Your task to perform on an android device: create a new album in the google photos Image 0: 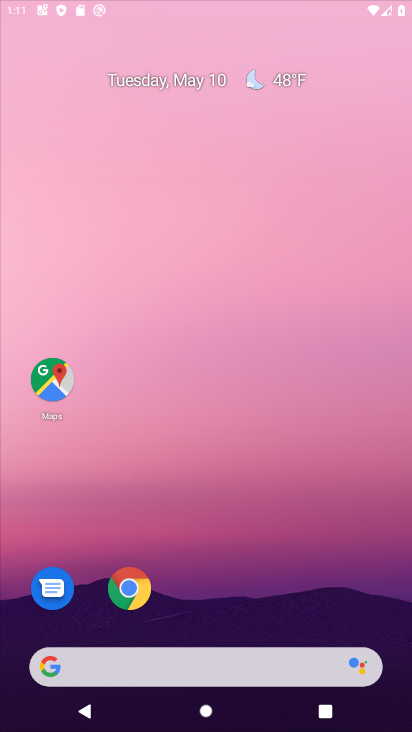
Step 0: drag from (213, 583) to (221, 263)
Your task to perform on an android device: create a new album in the google photos Image 1: 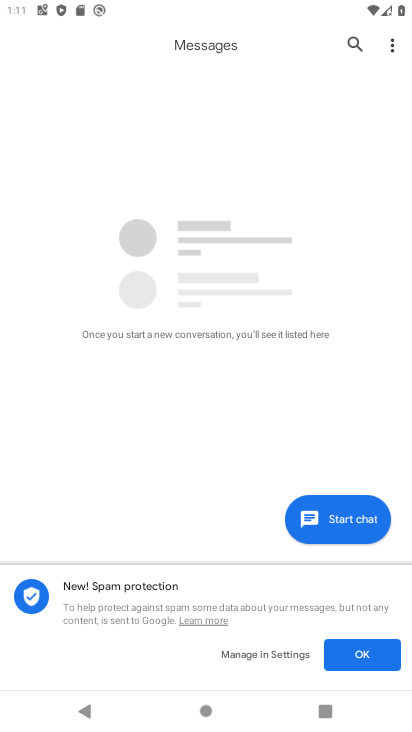
Step 1: press home button
Your task to perform on an android device: create a new album in the google photos Image 2: 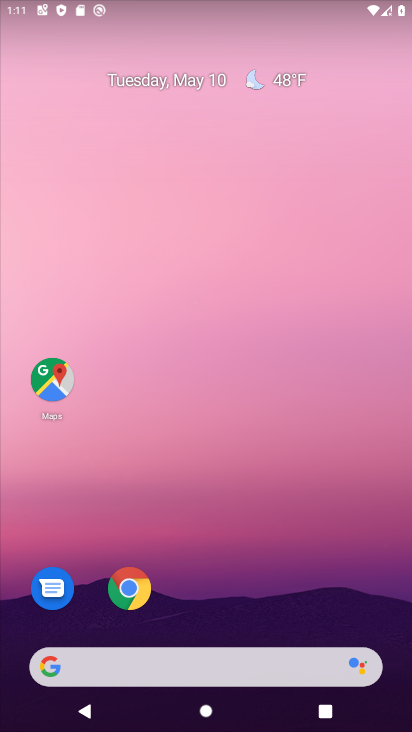
Step 2: drag from (244, 616) to (162, 15)
Your task to perform on an android device: create a new album in the google photos Image 3: 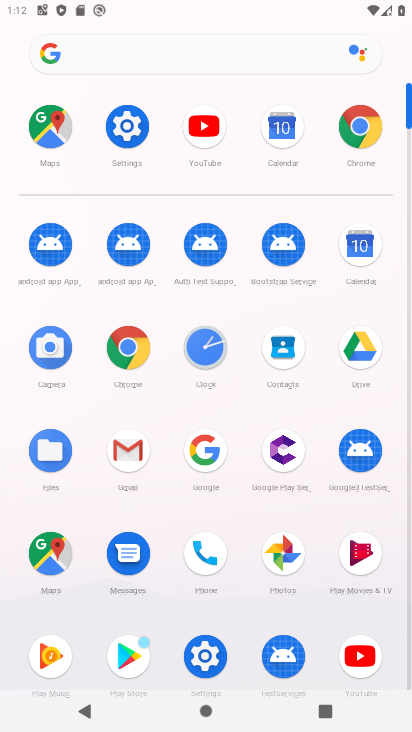
Step 3: click (278, 562)
Your task to perform on an android device: create a new album in the google photos Image 4: 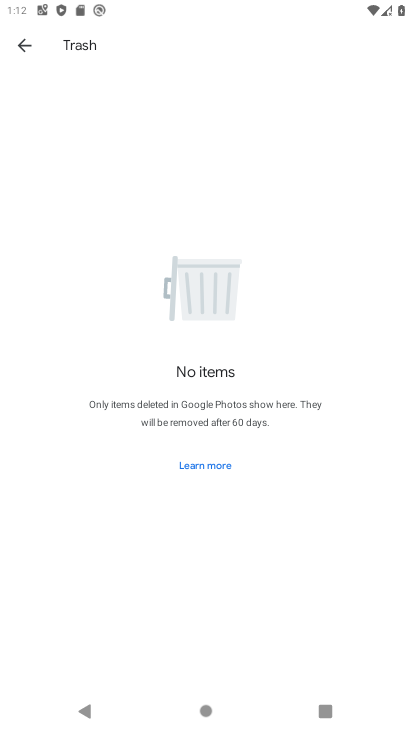
Step 4: click (21, 14)
Your task to perform on an android device: create a new album in the google photos Image 5: 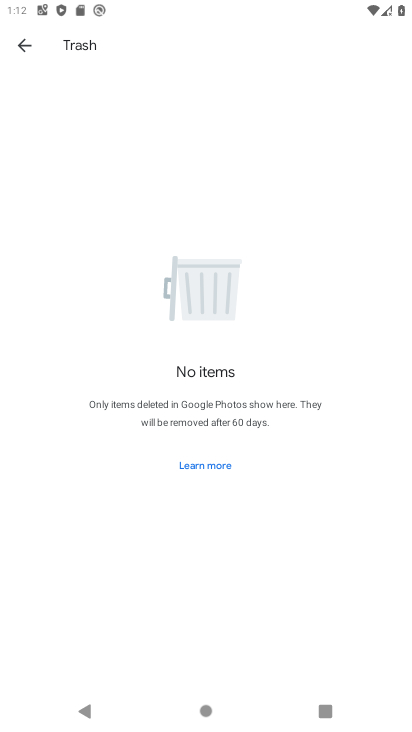
Step 5: click (15, 30)
Your task to perform on an android device: create a new album in the google photos Image 6: 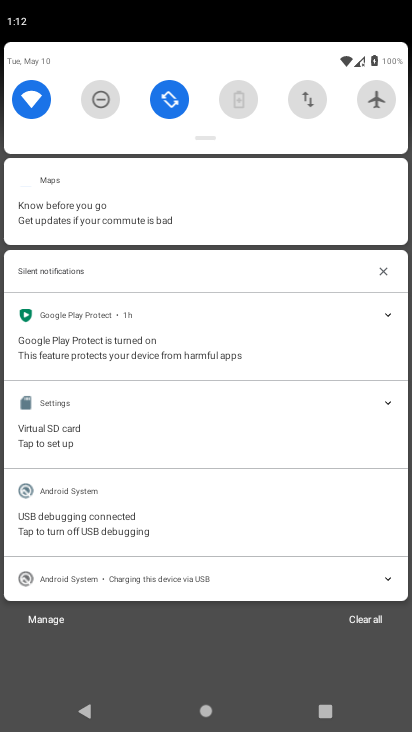
Step 6: click (210, 646)
Your task to perform on an android device: create a new album in the google photos Image 7: 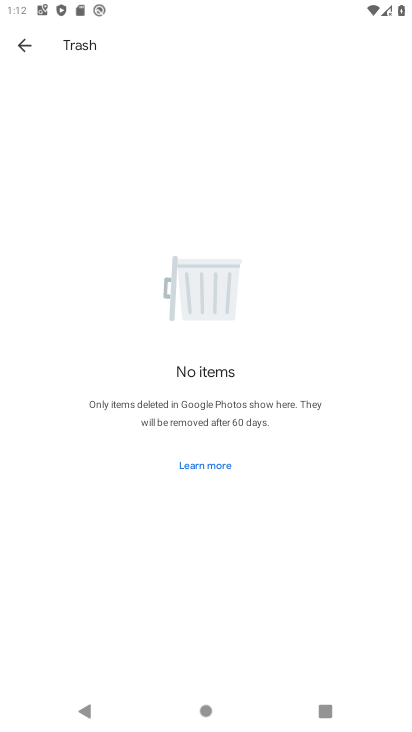
Step 7: click (25, 40)
Your task to perform on an android device: create a new album in the google photos Image 8: 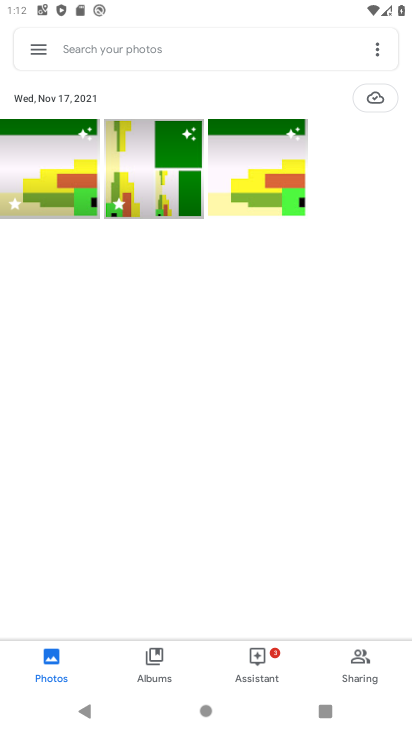
Step 8: click (57, 195)
Your task to perform on an android device: create a new album in the google photos Image 9: 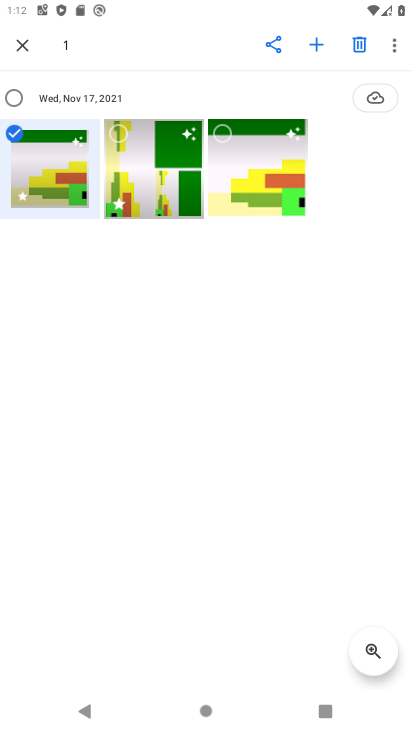
Step 9: click (315, 47)
Your task to perform on an android device: create a new album in the google photos Image 10: 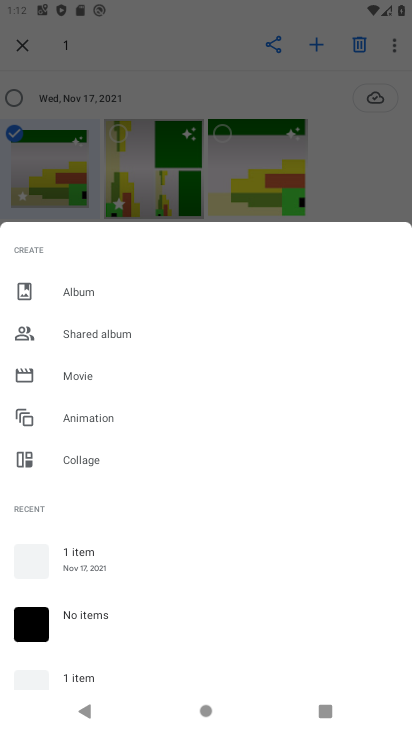
Step 10: click (89, 296)
Your task to perform on an android device: create a new album in the google photos Image 11: 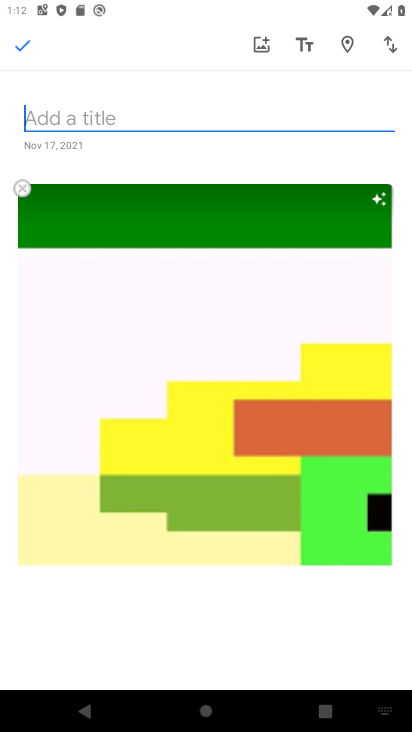
Step 11: click (133, 106)
Your task to perform on an android device: create a new album in the google photos Image 12: 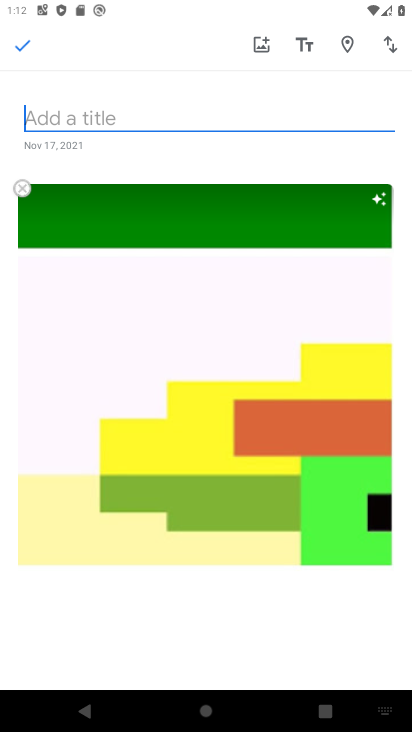
Step 12: type "lllllllllll"
Your task to perform on an android device: create a new album in the google photos Image 13: 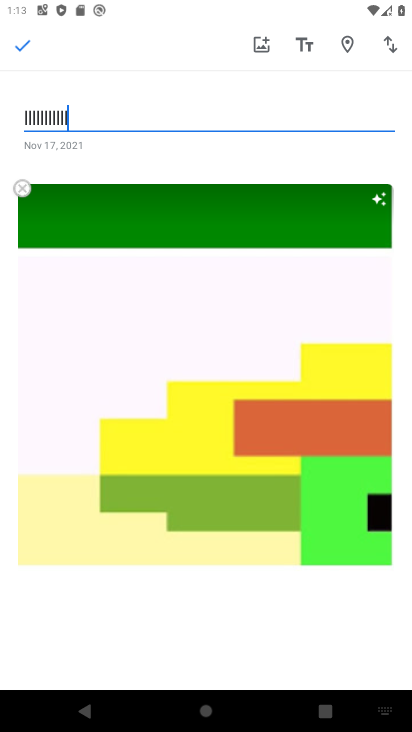
Step 13: click (14, 38)
Your task to perform on an android device: create a new album in the google photos Image 14: 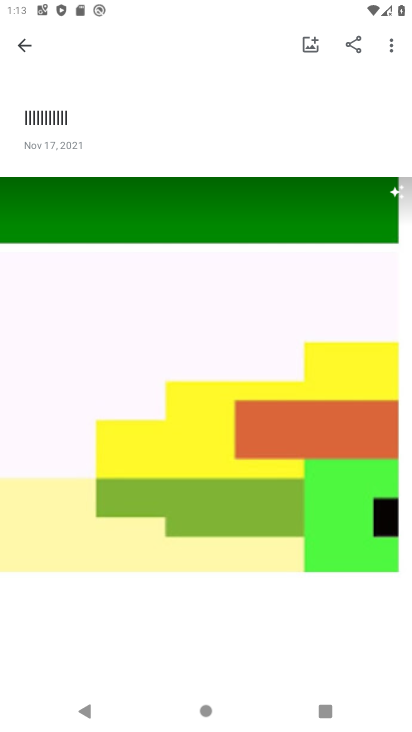
Step 14: task complete